Your task to perform on an android device: snooze an email in the gmail app Image 0: 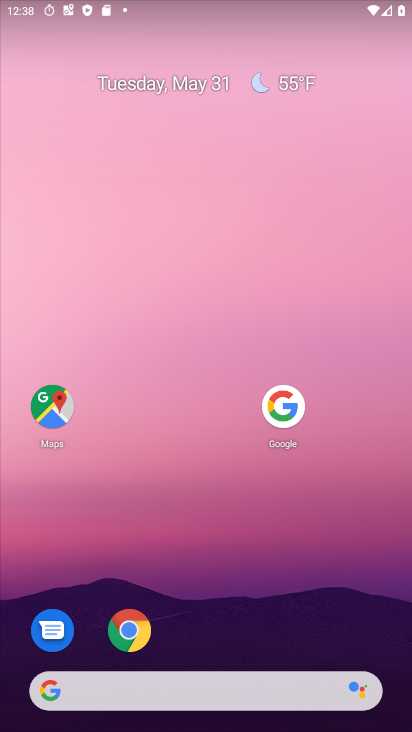
Step 0: drag from (257, 690) to (339, 342)
Your task to perform on an android device: snooze an email in the gmail app Image 1: 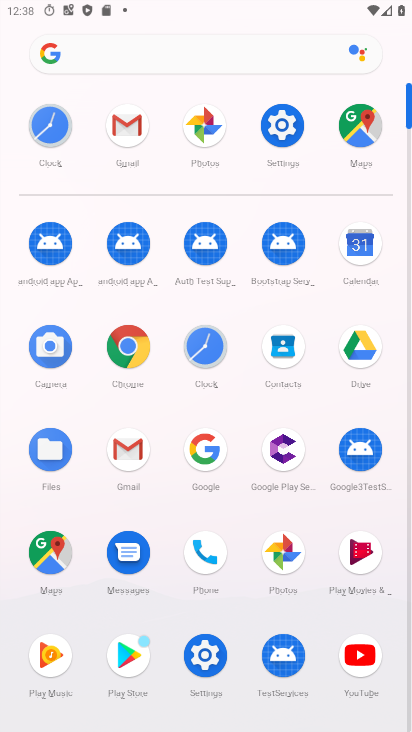
Step 1: click (128, 129)
Your task to perform on an android device: snooze an email in the gmail app Image 2: 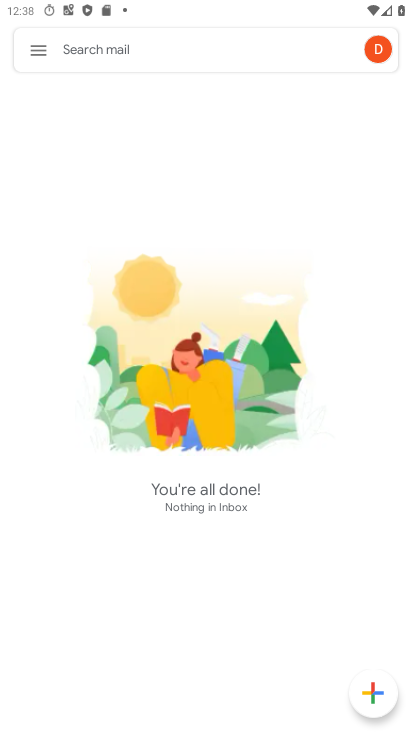
Step 2: task complete